Your task to perform on an android device: turn on javascript in the chrome app Image 0: 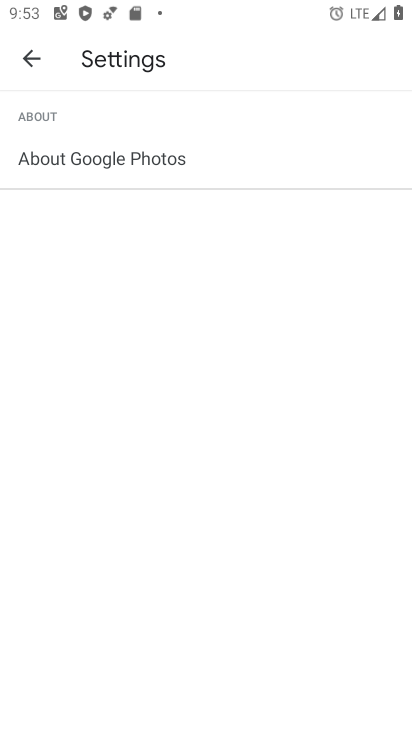
Step 0: press home button
Your task to perform on an android device: turn on javascript in the chrome app Image 1: 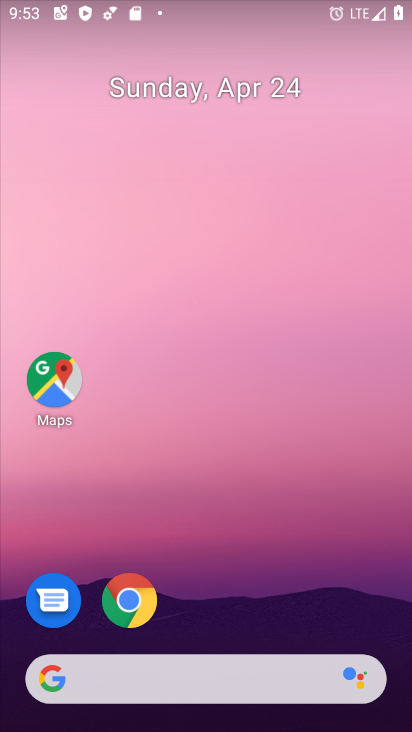
Step 1: click (137, 609)
Your task to perform on an android device: turn on javascript in the chrome app Image 2: 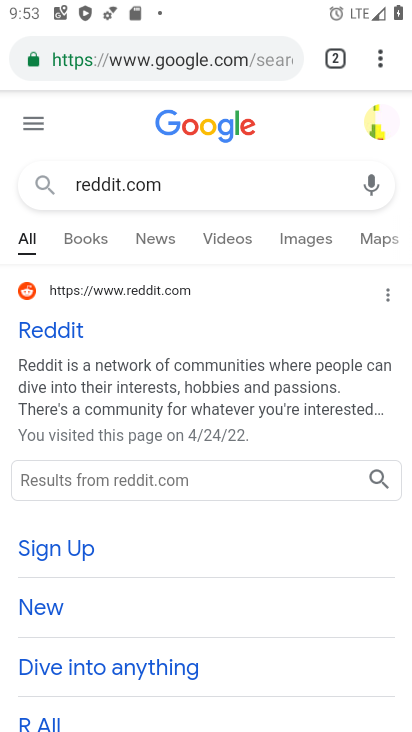
Step 2: click (381, 61)
Your task to perform on an android device: turn on javascript in the chrome app Image 3: 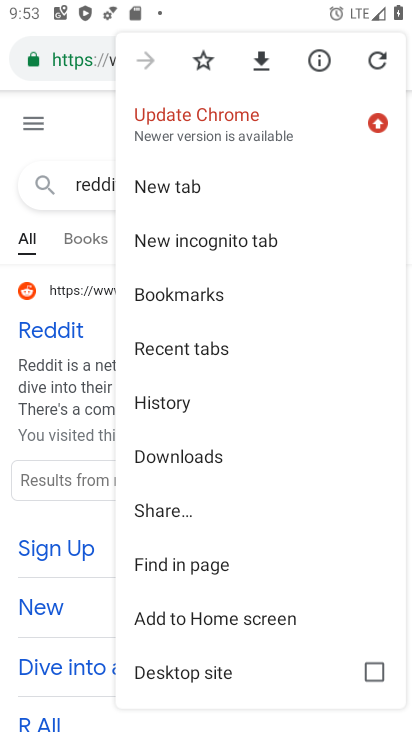
Step 3: drag from (178, 590) to (241, 259)
Your task to perform on an android device: turn on javascript in the chrome app Image 4: 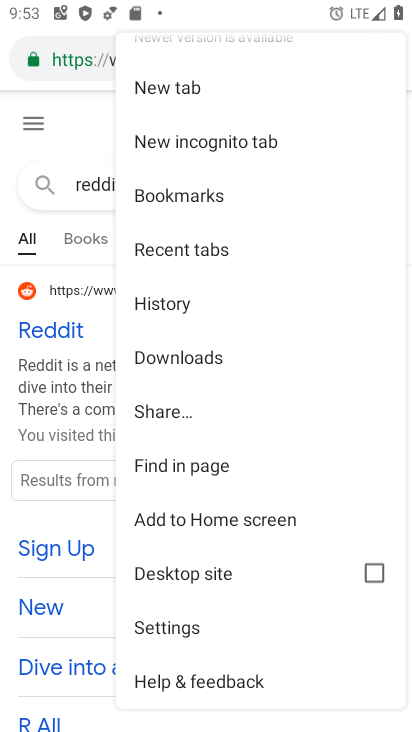
Step 4: click (188, 630)
Your task to perform on an android device: turn on javascript in the chrome app Image 5: 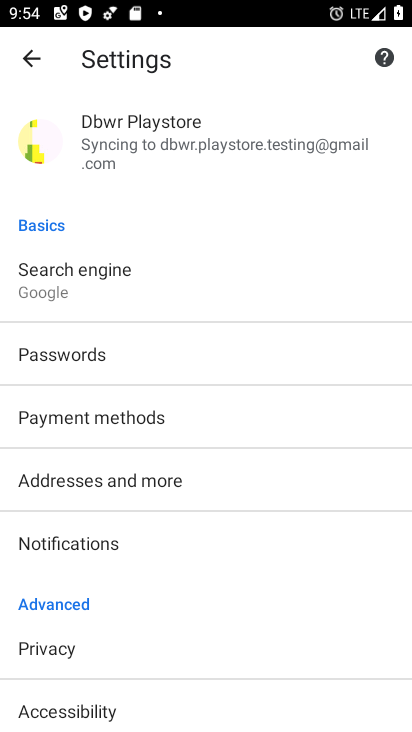
Step 5: drag from (134, 557) to (171, 269)
Your task to perform on an android device: turn on javascript in the chrome app Image 6: 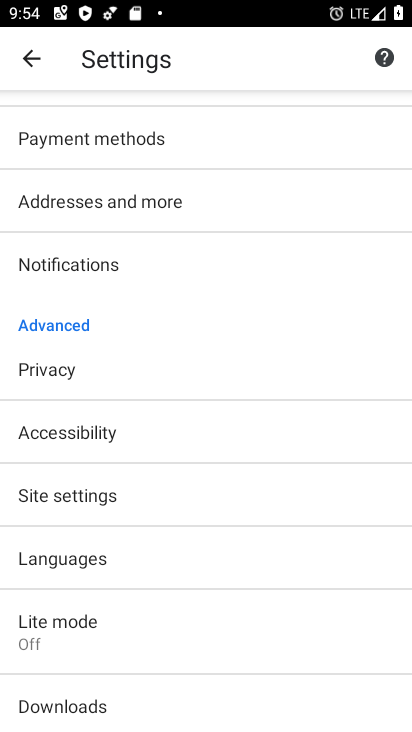
Step 6: click (112, 496)
Your task to perform on an android device: turn on javascript in the chrome app Image 7: 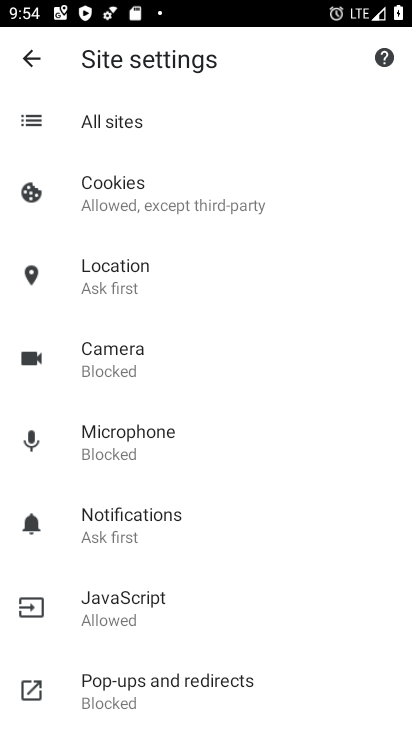
Step 7: click (110, 617)
Your task to perform on an android device: turn on javascript in the chrome app Image 8: 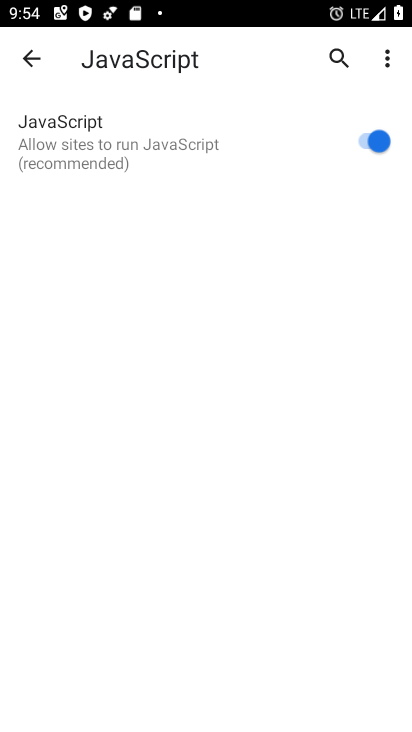
Step 8: task complete